Your task to perform on an android device: Search for pizza restaurants on Maps Image 0: 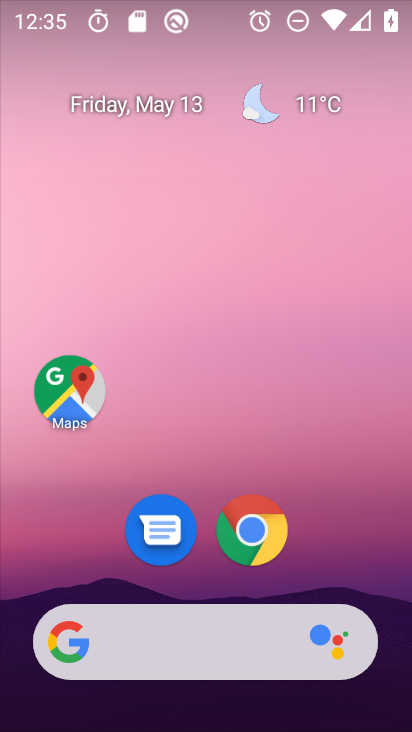
Step 0: press home button
Your task to perform on an android device: Search for pizza restaurants on Maps Image 1: 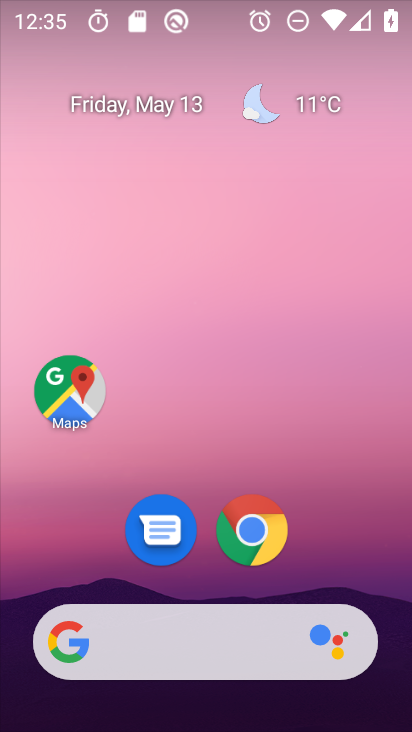
Step 1: drag from (246, 503) to (324, 115)
Your task to perform on an android device: Search for pizza restaurants on Maps Image 2: 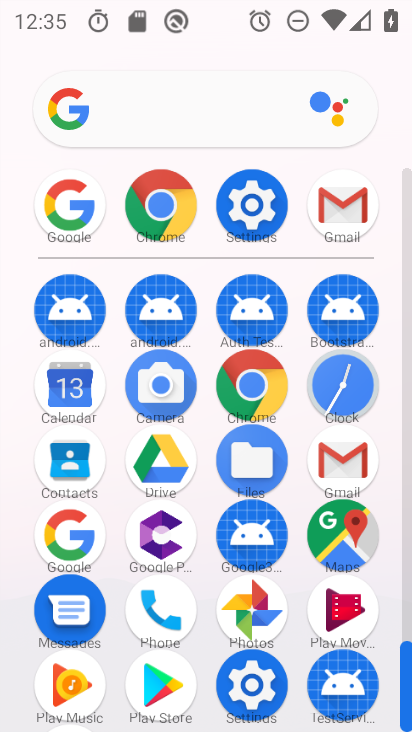
Step 2: click (341, 550)
Your task to perform on an android device: Search for pizza restaurants on Maps Image 3: 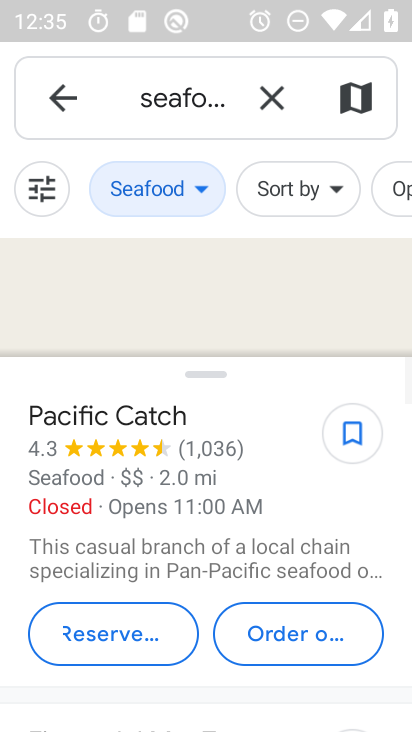
Step 3: click (273, 100)
Your task to perform on an android device: Search for pizza restaurants on Maps Image 4: 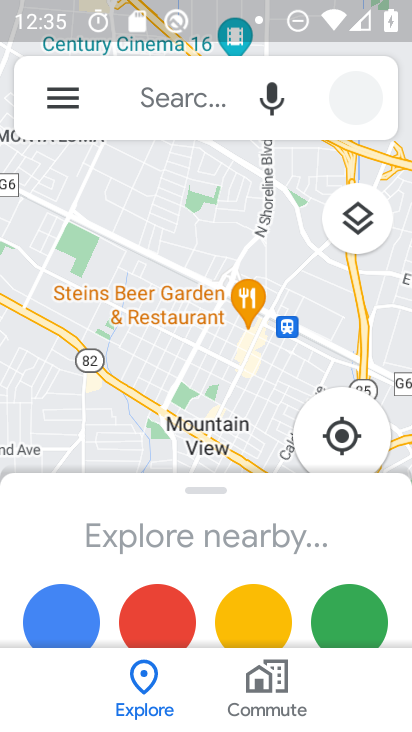
Step 4: click (181, 96)
Your task to perform on an android device: Search for pizza restaurants on Maps Image 5: 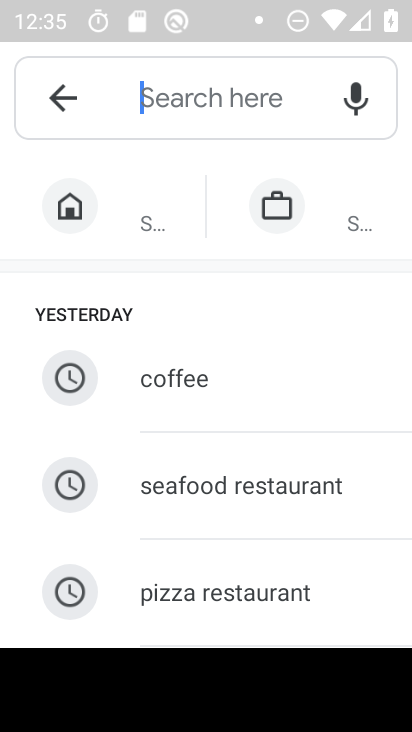
Step 5: click (211, 590)
Your task to perform on an android device: Search for pizza restaurants on Maps Image 6: 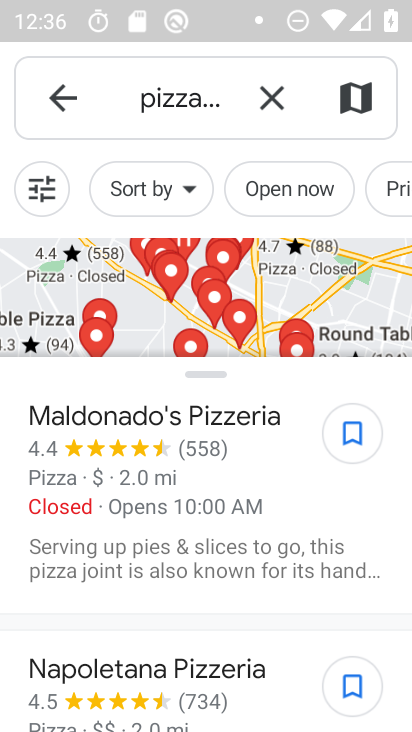
Step 6: task complete